Your task to perform on an android device: Go to Google maps Image 0: 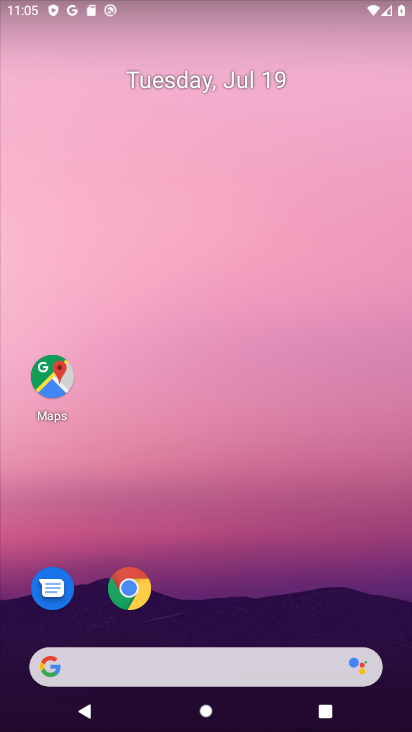
Step 0: click (238, 293)
Your task to perform on an android device: Go to Google maps Image 1: 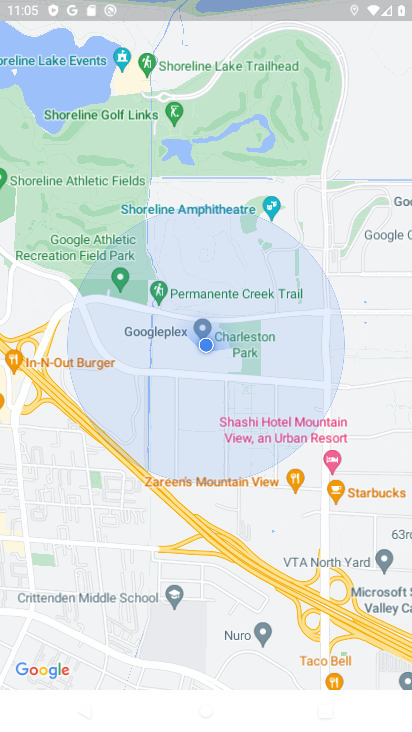
Step 1: task complete